Your task to perform on an android device: set default search engine in the chrome app Image 0: 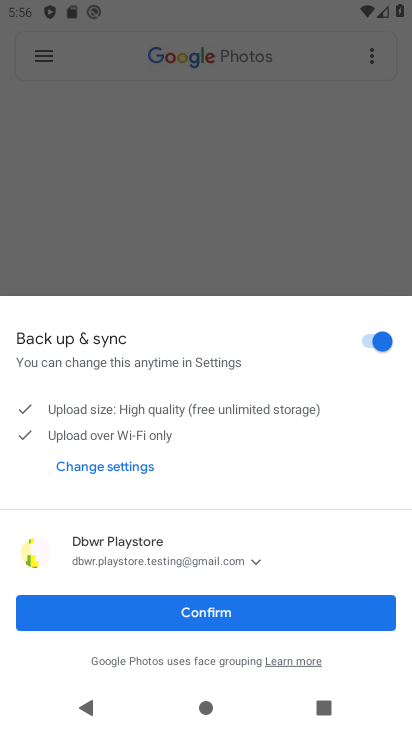
Step 0: click (195, 627)
Your task to perform on an android device: set default search engine in the chrome app Image 1: 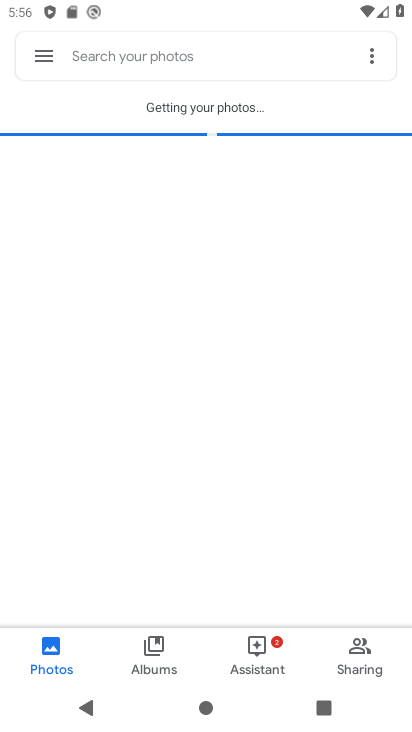
Step 1: press home button
Your task to perform on an android device: set default search engine in the chrome app Image 2: 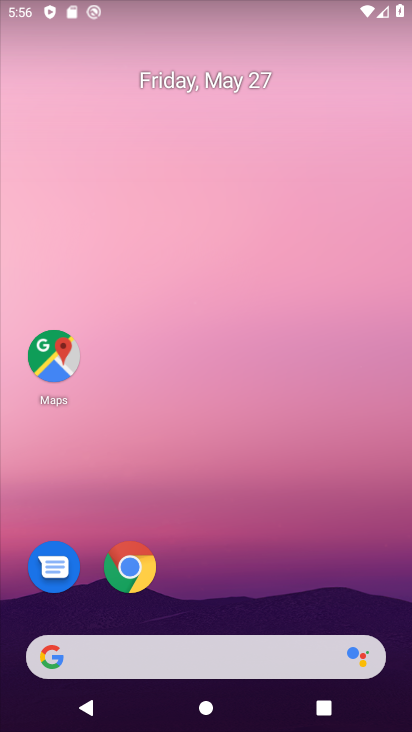
Step 2: click (125, 566)
Your task to perform on an android device: set default search engine in the chrome app Image 3: 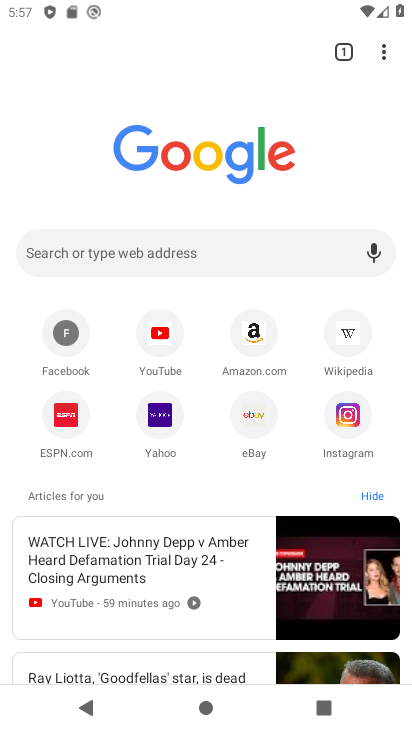
Step 3: click (382, 59)
Your task to perform on an android device: set default search engine in the chrome app Image 4: 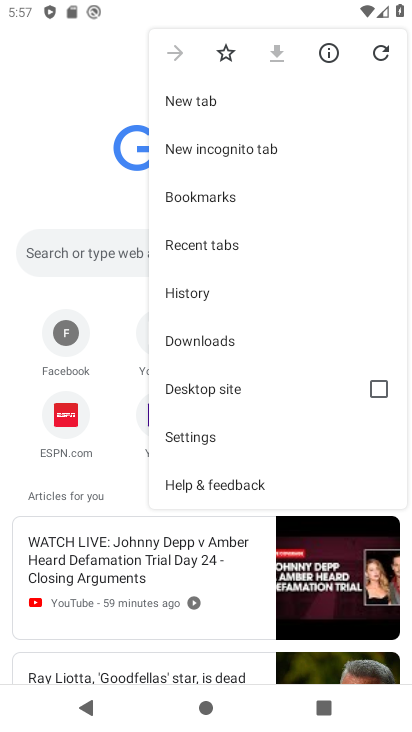
Step 4: click (206, 434)
Your task to perform on an android device: set default search engine in the chrome app Image 5: 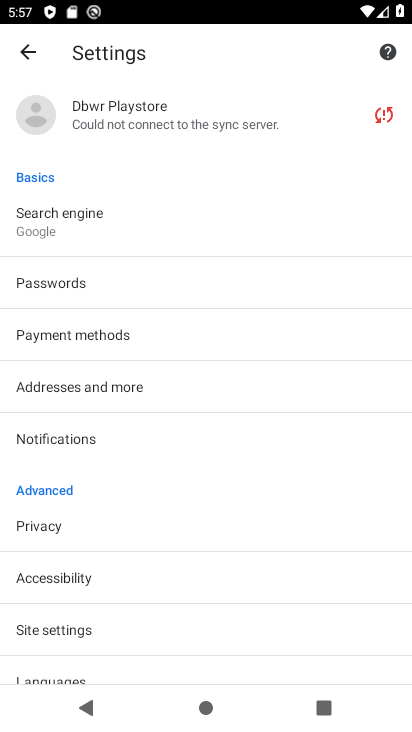
Step 5: click (87, 235)
Your task to perform on an android device: set default search engine in the chrome app Image 6: 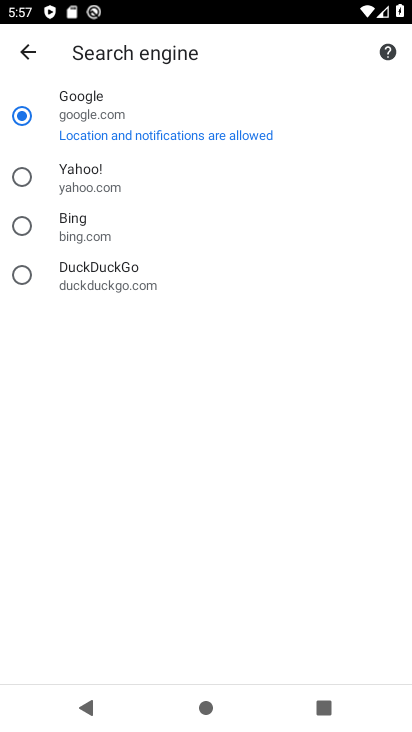
Step 6: click (16, 168)
Your task to perform on an android device: set default search engine in the chrome app Image 7: 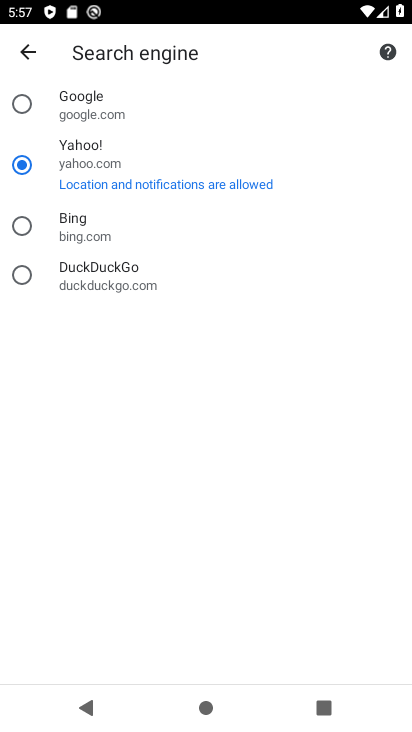
Step 7: task complete